Your task to perform on an android device: Search for sushi restaurants on Maps Image 0: 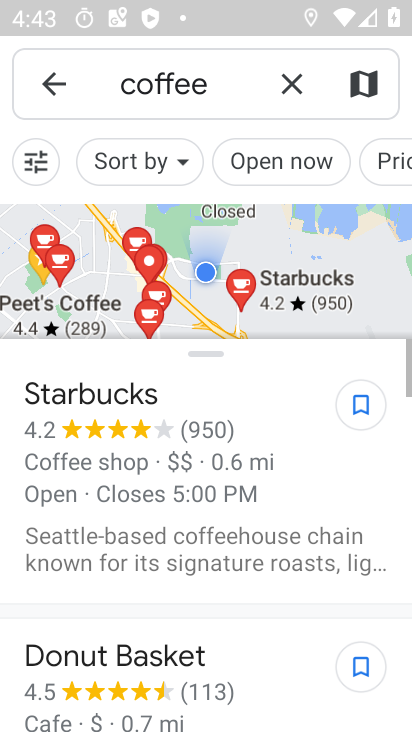
Step 0: click (284, 85)
Your task to perform on an android device: Search for sushi restaurants on Maps Image 1: 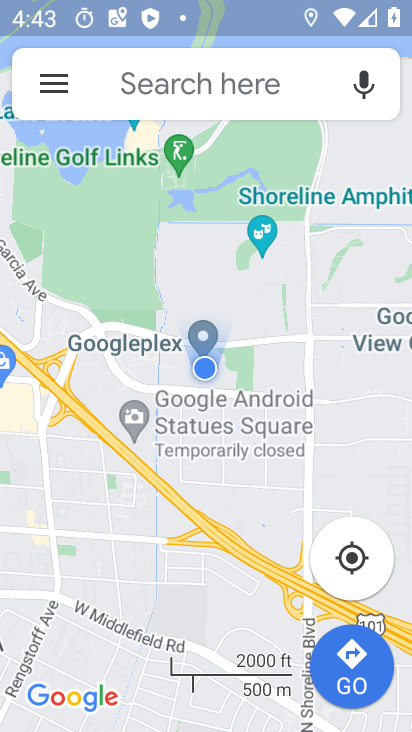
Step 1: click (195, 82)
Your task to perform on an android device: Search for sushi restaurants on Maps Image 2: 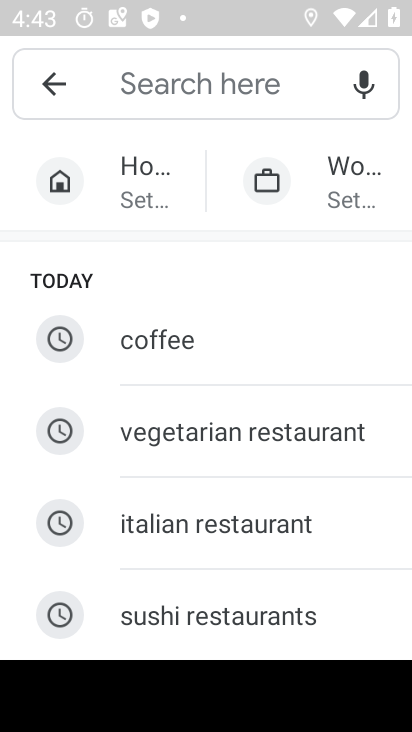
Step 2: click (246, 615)
Your task to perform on an android device: Search for sushi restaurants on Maps Image 3: 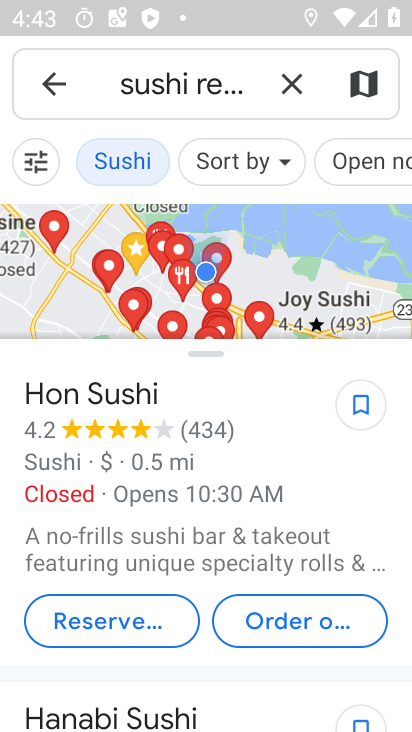
Step 3: task complete